Your task to perform on an android device: Open settings on Google Maps Image 0: 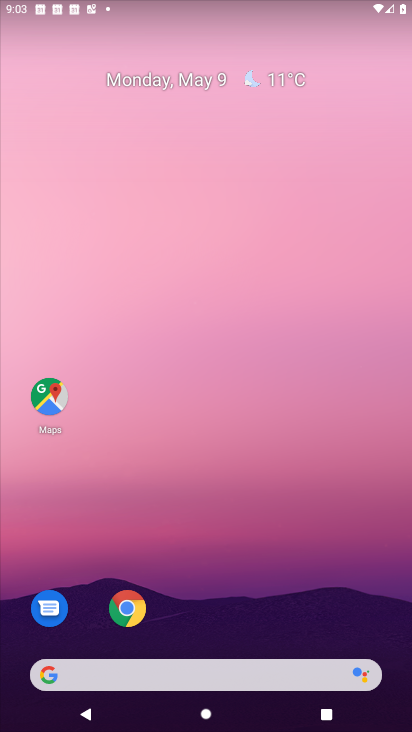
Step 0: click (52, 401)
Your task to perform on an android device: Open settings on Google Maps Image 1: 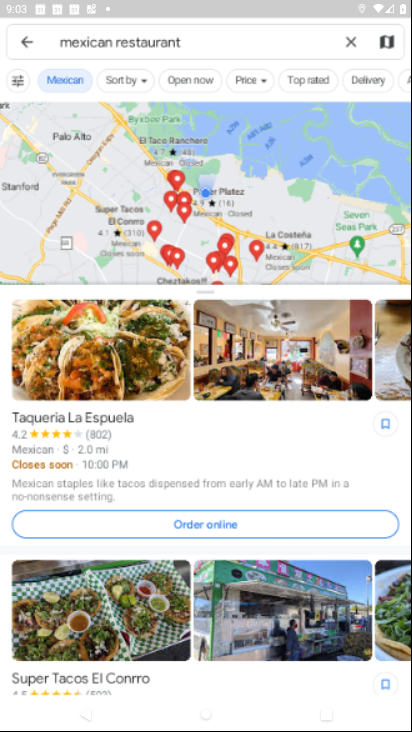
Step 1: click (19, 46)
Your task to perform on an android device: Open settings on Google Maps Image 2: 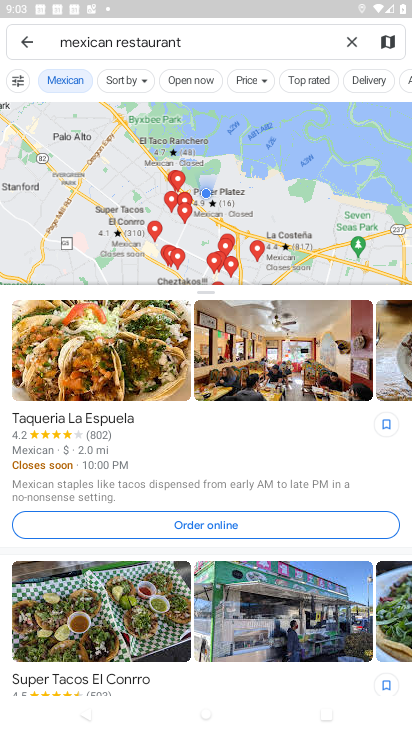
Step 2: click (31, 40)
Your task to perform on an android device: Open settings on Google Maps Image 3: 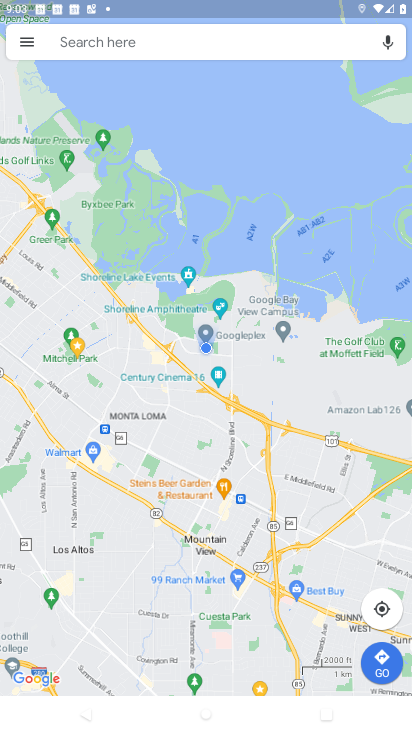
Step 3: click (26, 42)
Your task to perform on an android device: Open settings on Google Maps Image 4: 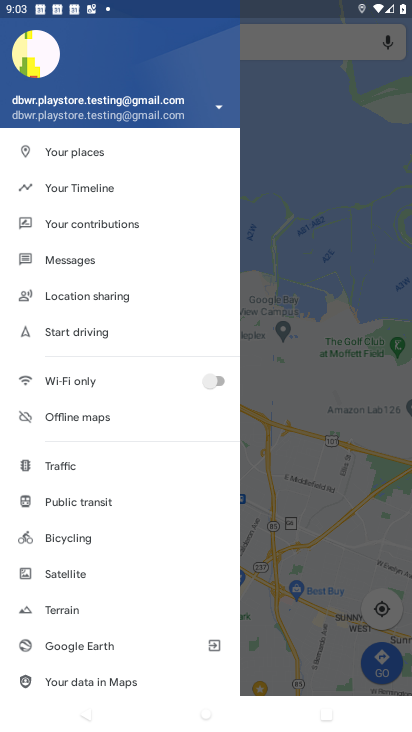
Step 4: drag from (143, 586) to (138, 259)
Your task to perform on an android device: Open settings on Google Maps Image 5: 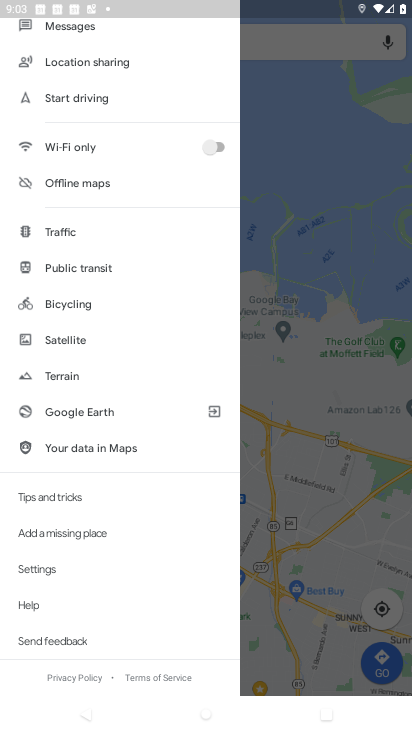
Step 5: click (50, 566)
Your task to perform on an android device: Open settings on Google Maps Image 6: 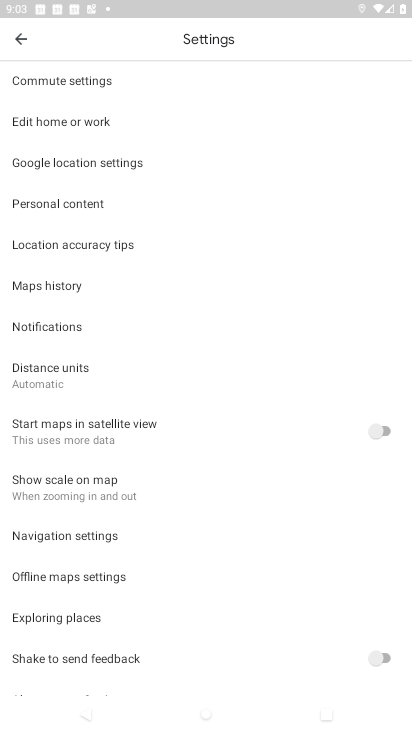
Step 6: task complete